Your task to perform on an android device: toggle notifications settings in the gmail app Image 0: 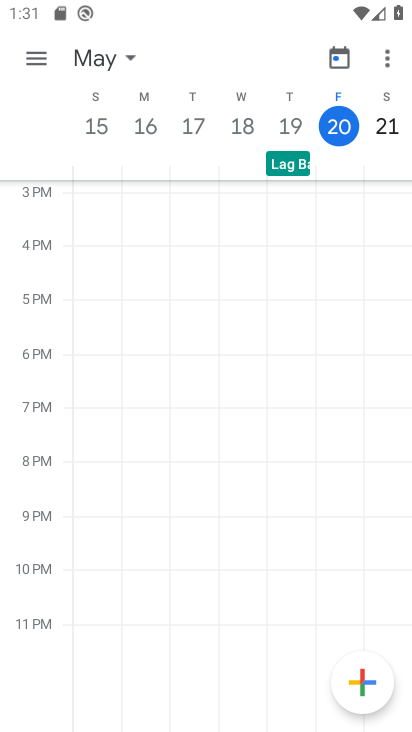
Step 0: press home button
Your task to perform on an android device: toggle notifications settings in the gmail app Image 1: 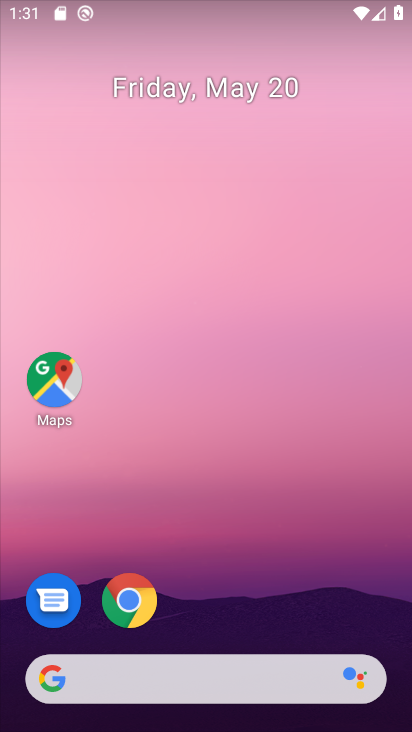
Step 1: drag from (248, 600) to (169, 132)
Your task to perform on an android device: toggle notifications settings in the gmail app Image 2: 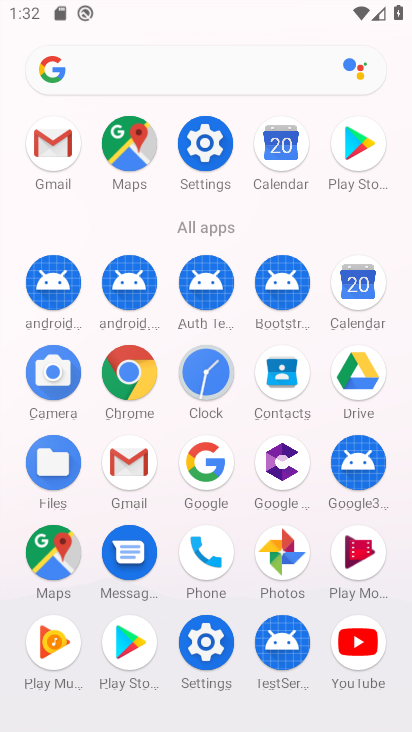
Step 2: click (133, 464)
Your task to perform on an android device: toggle notifications settings in the gmail app Image 3: 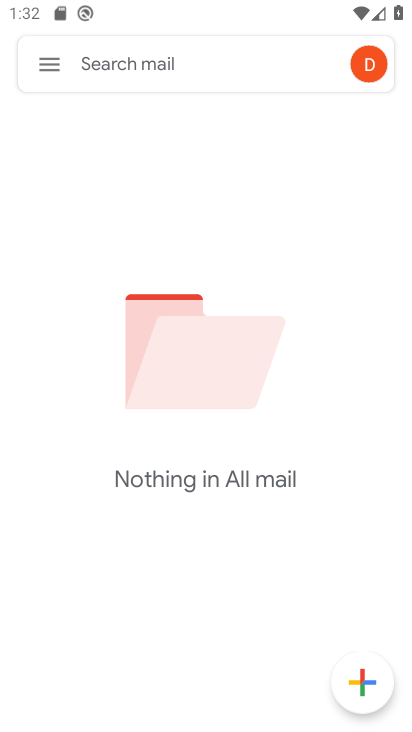
Step 3: click (49, 68)
Your task to perform on an android device: toggle notifications settings in the gmail app Image 4: 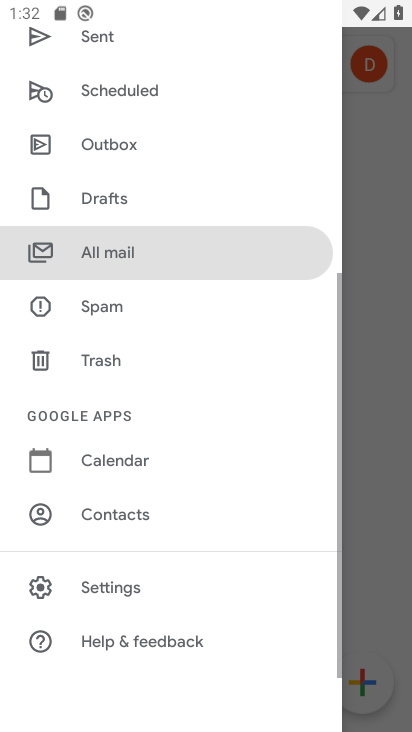
Step 4: click (107, 584)
Your task to perform on an android device: toggle notifications settings in the gmail app Image 5: 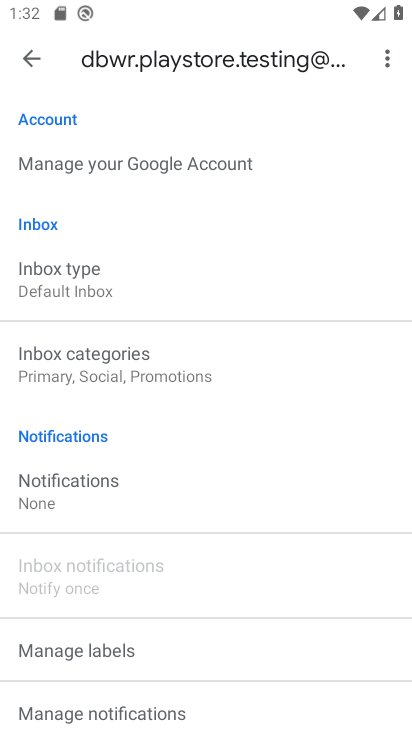
Step 5: click (124, 478)
Your task to perform on an android device: toggle notifications settings in the gmail app Image 6: 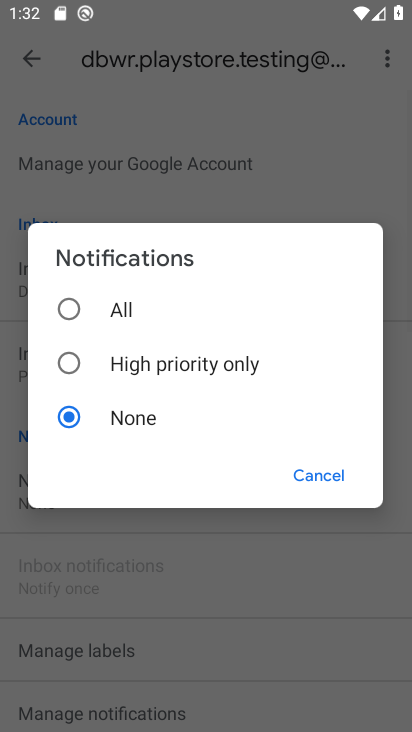
Step 6: click (129, 310)
Your task to perform on an android device: toggle notifications settings in the gmail app Image 7: 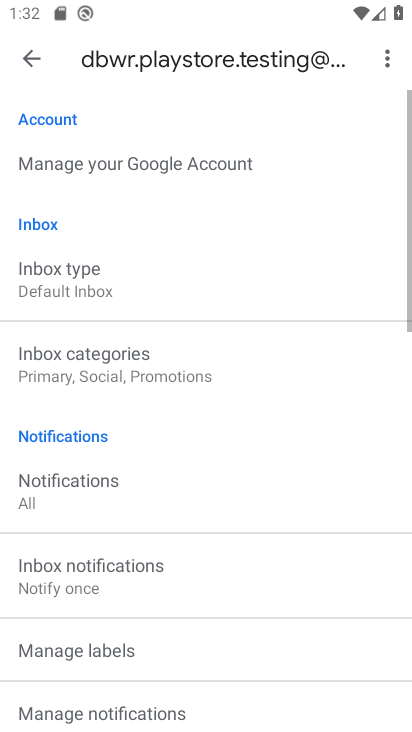
Step 7: task complete